Your task to perform on an android device: Show me popular videos on Youtube Image 0: 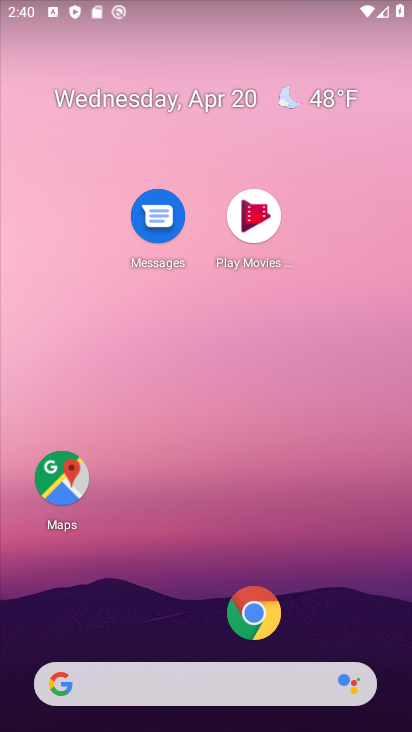
Step 0: drag from (185, 647) to (182, 156)
Your task to perform on an android device: Show me popular videos on Youtube Image 1: 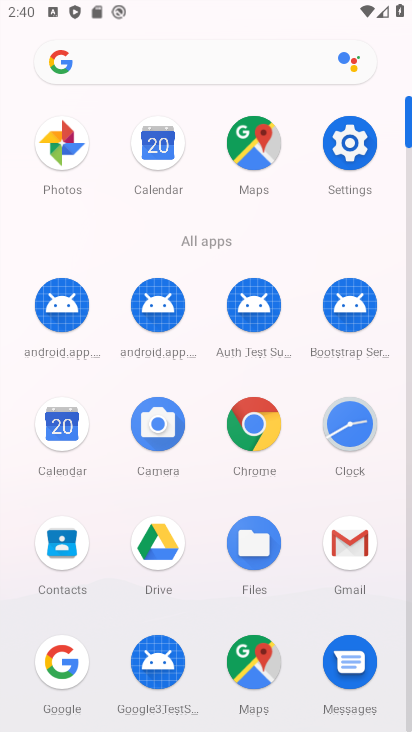
Step 1: drag from (192, 636) to (198, 334)
Your task to perform on an android device: Show me popular videos on Youtube Image 2: 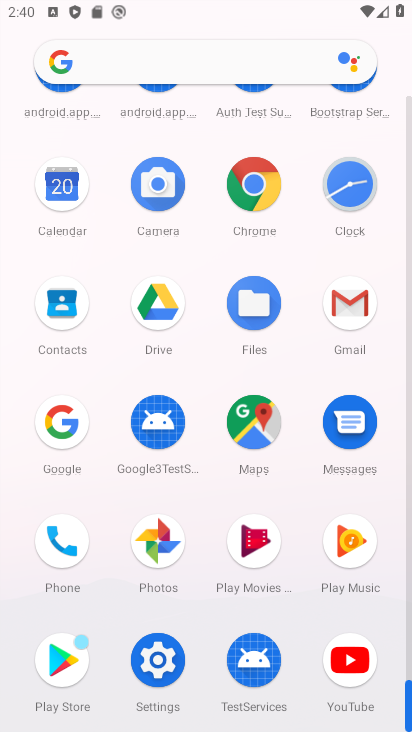
Step 2: click (347, 659)
Your task to perform on an android device: Show me popular videos on Youtube Image 3: 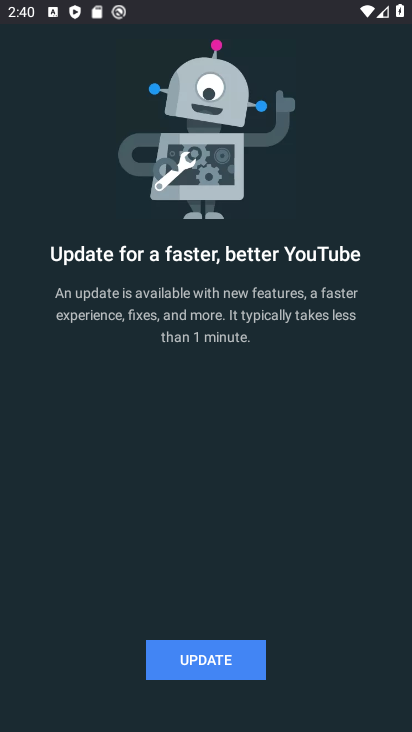
Step 3: click (206, 656)
Your task to perform on an android device: Show me popular videos on Youtube Image 4: 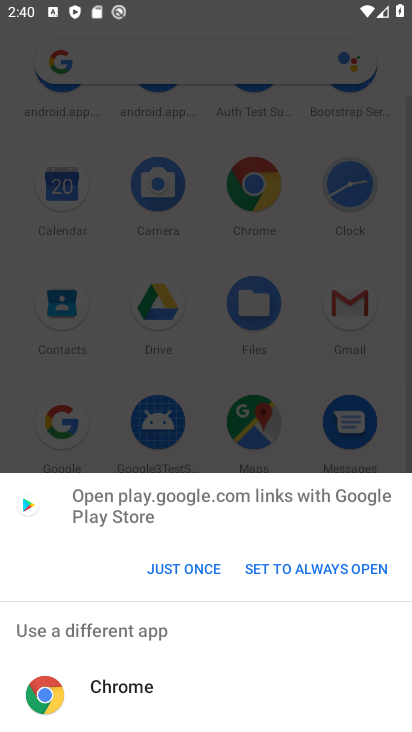
Step 4: click (311, 574)
Your task to perform on an android device: Show me popular videos on Youtube Image 5: 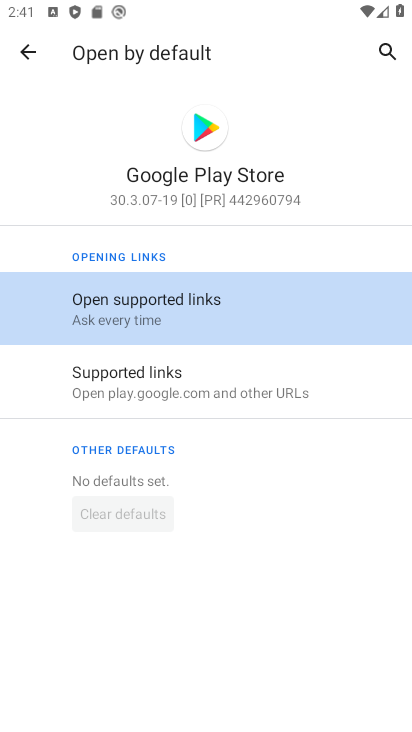
Step 5: click (274, 323)
Your task to perform on an android device: Show me popular videos on Youtube Image 6: 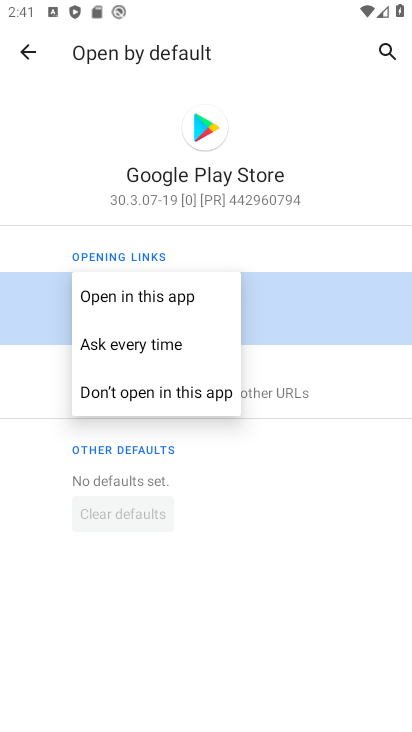
Step 6: click (169, 294)
Your task to perform on an android device: Show me popular videos on Youtube Image 7: 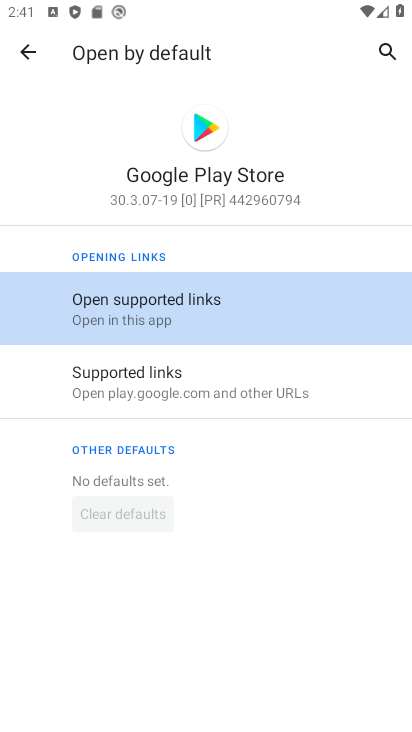
Step 7: click (43, 51)
Your task to perform on an android device: Show me popular videos on Youtube Image 8: 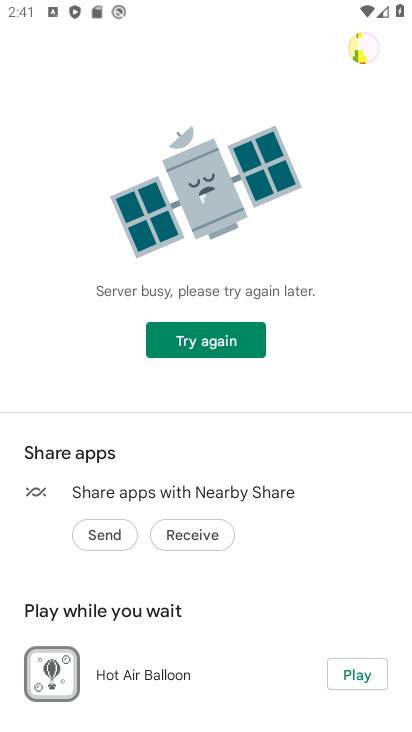
Step 8: click (216, 351)
Your task to perform on an android device: Show me popular videos on Youtube Image 9: 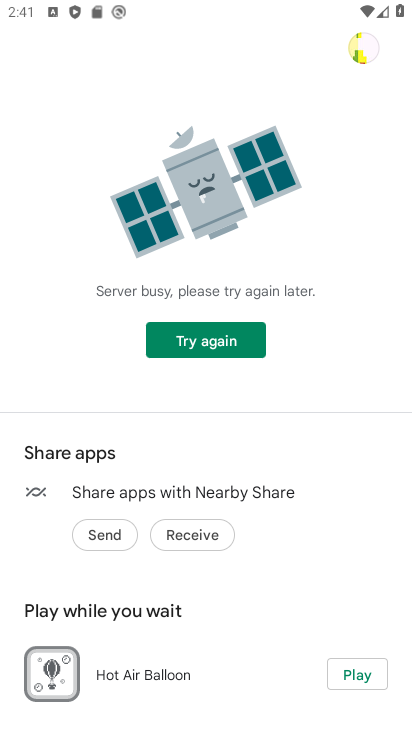
Step 9: task complete